Your task to perform on an android device: Go to internet settings Image 0: 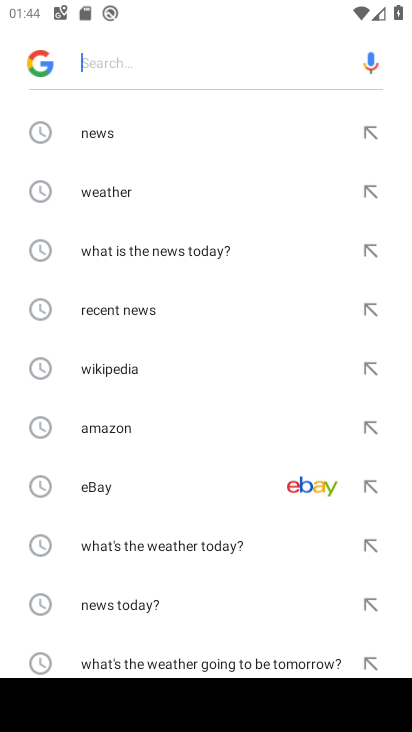
Step 0: press home button
Your task to perform on an android device: Go to internet settings Image 1: 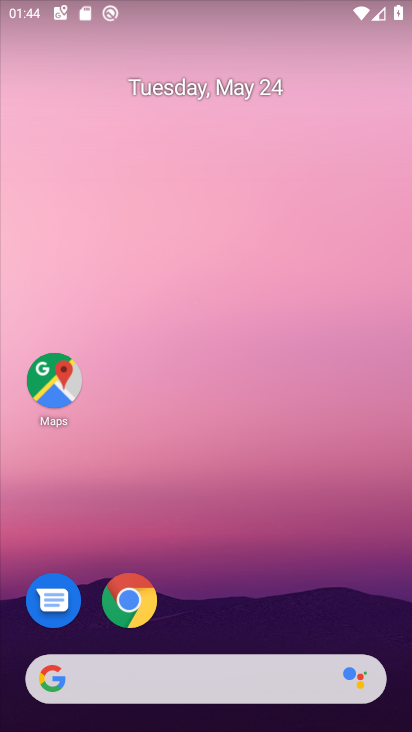
Step 1: drag from (271, 604) to (275, 210)
Your task to perform on an android device: Go to internet settings Image 2: 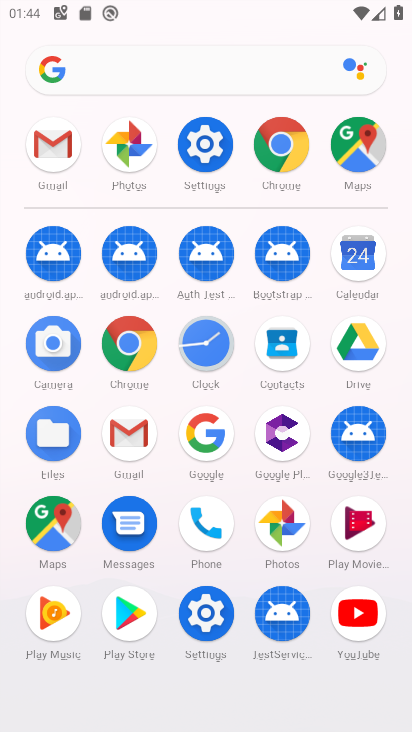
Step 2: click (201, 154)
Your task to perform on an android device: Go to internet settings Image 3: 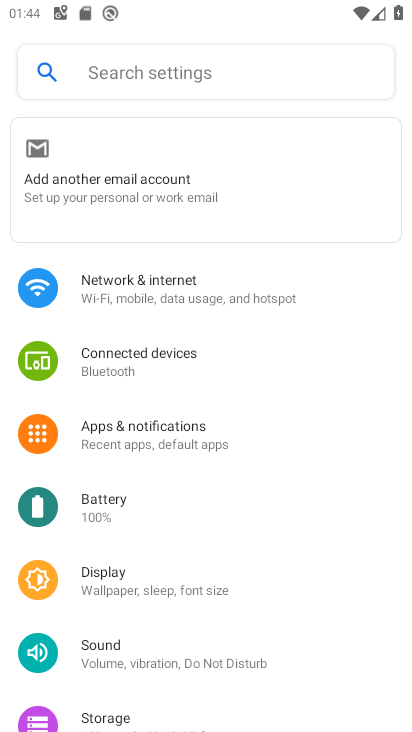
Step 3: click (201, 266)
Your task to perform on an android device: Go to internet settings Image 4: 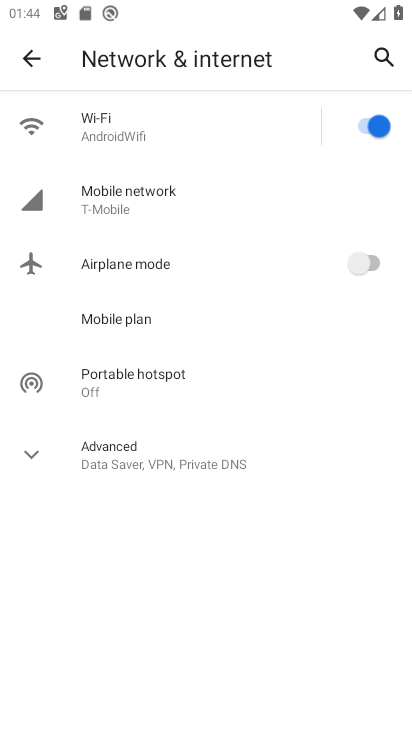
Step 4: task complete